Your task to perform on an android device: turn on the 24-hour format for clock Image 0: 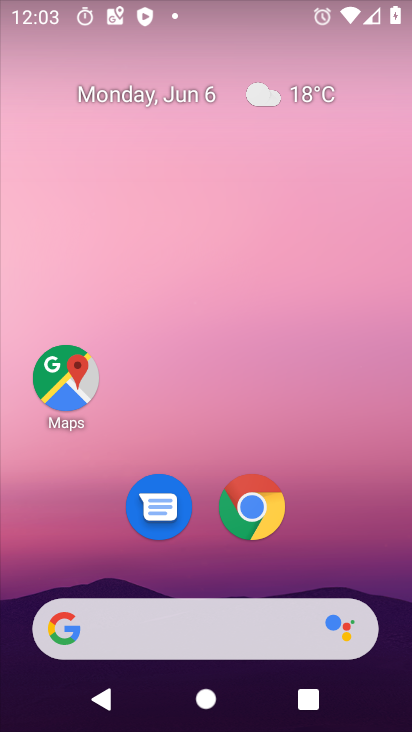
Step 0: click (211, 35)
Your task to perform on an android device: turn on the 24-hour format for clock Image 1: 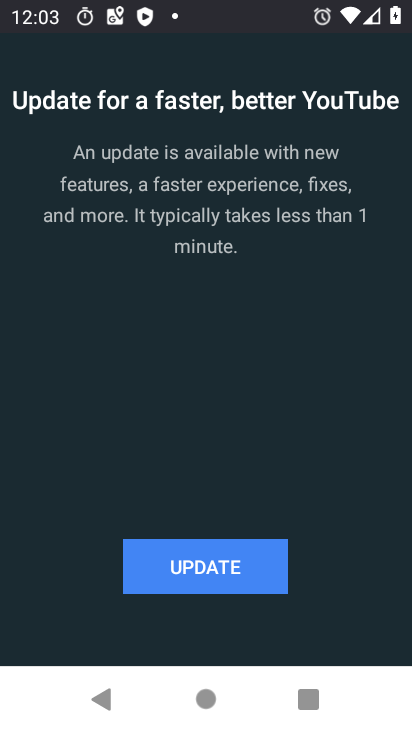
Step 1: press home button
Your task to perform on an android device: turn on the 24-hour format for clock Image 2: 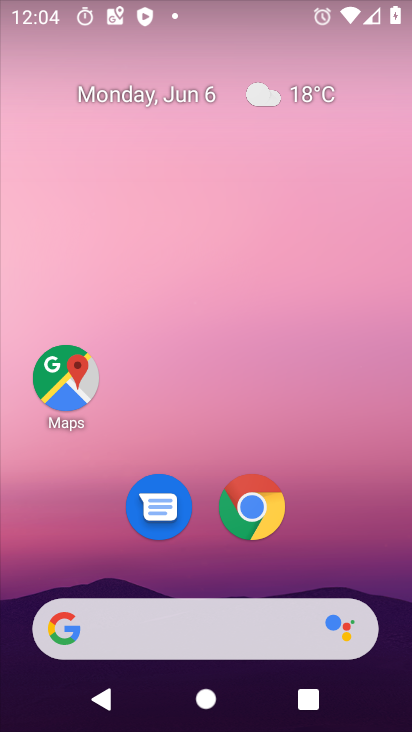
Step 2: drag from (241, 705) to (214, 4)
Your task to perform on an android device: turn on the 24-hour format for clock Image 3: 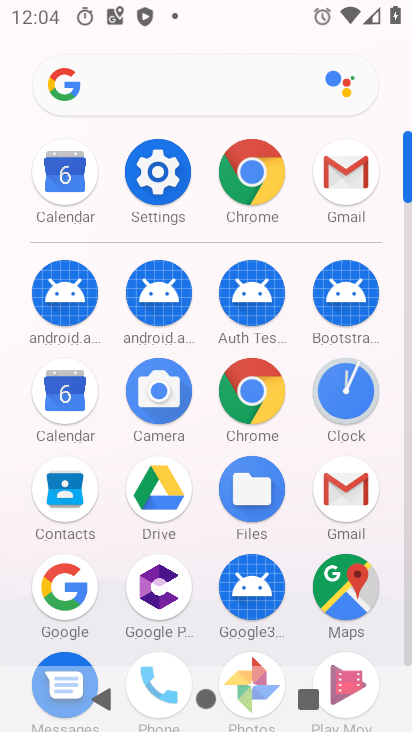
Step 3: click (348, 398)
Your task to perform on an android device: turn on the 24-hour format for clock Image 4: 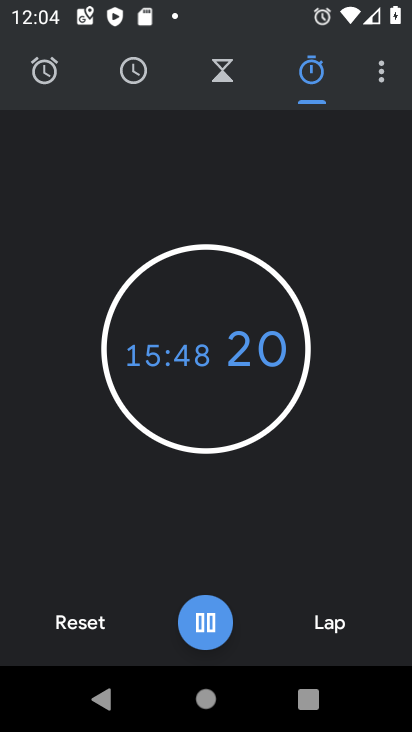
Step 4: click (385, 78)
Your task to perform on an android device: turn on the 24-hour format for clock Image 5: 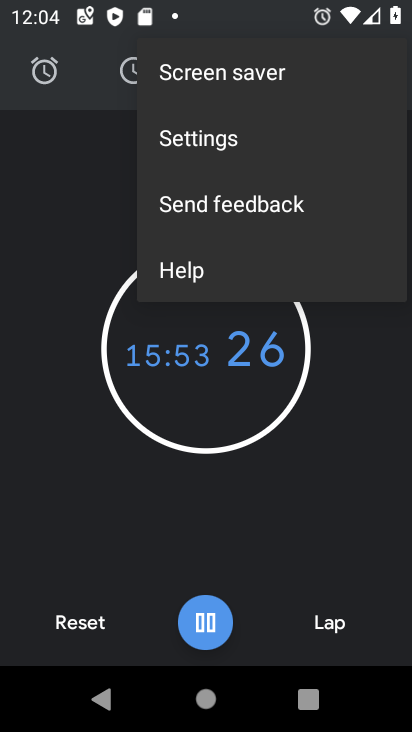
Step 5: click (215, 140)
Your task to perform on an android device: turn on the 24-hour format for clock Image 6: 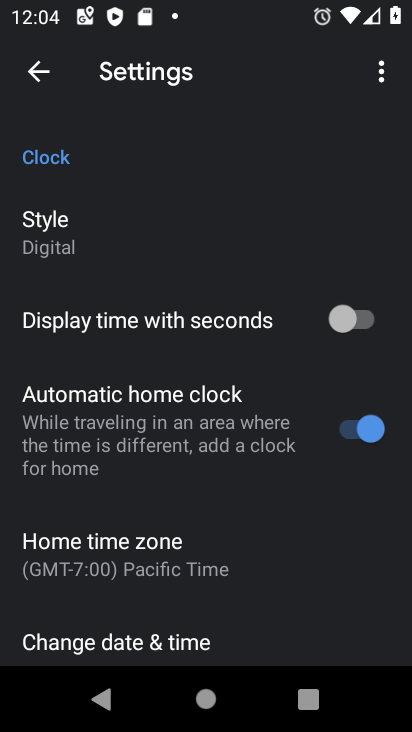
Step 6: click (109, 642)
Your task to perform on an android device: turn on the 24-hour format for clock Image 7: 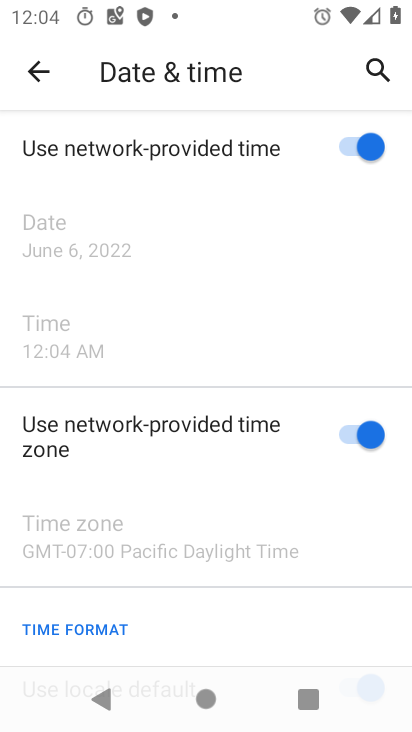
Step 7: drag from (177, 634) to (146, 193)
Your task to perform on an android device: turn on the 24-hour format for clock Image 8: 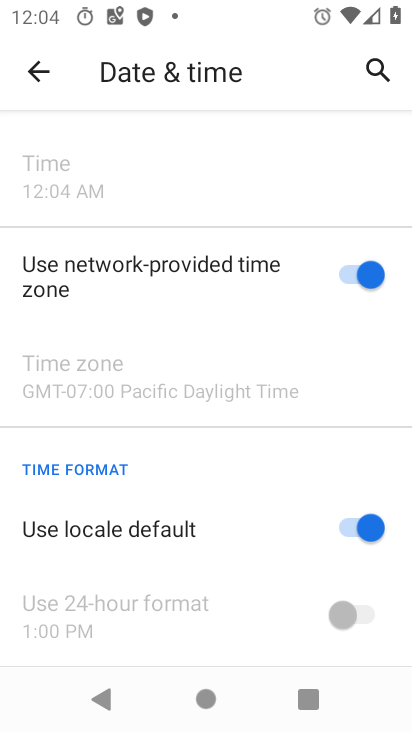
Step 8: click (349, 531)
Your task to perform on an android device: turn on the 24-hour format for clock Image 9: 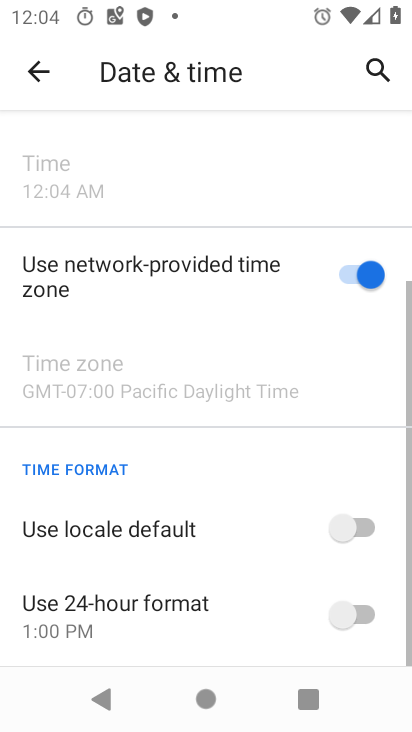
Step 9: click (362, 610)
Your task to perform on an android device: turn on the 24-hour format for clock Image 10: 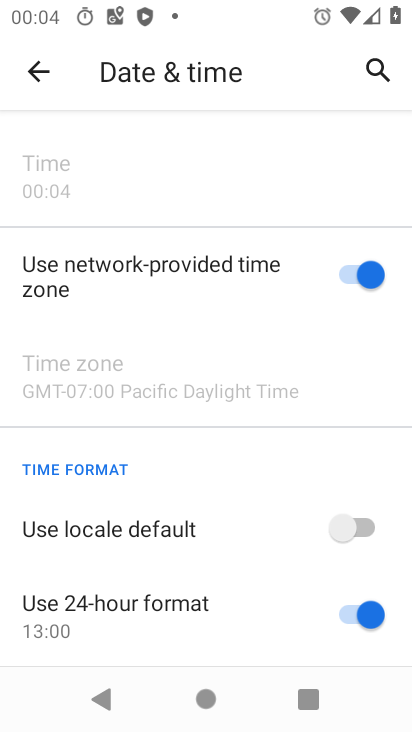
Step 10: task complete